Your task to perform on an android device: change alarm snooze length Image 0: 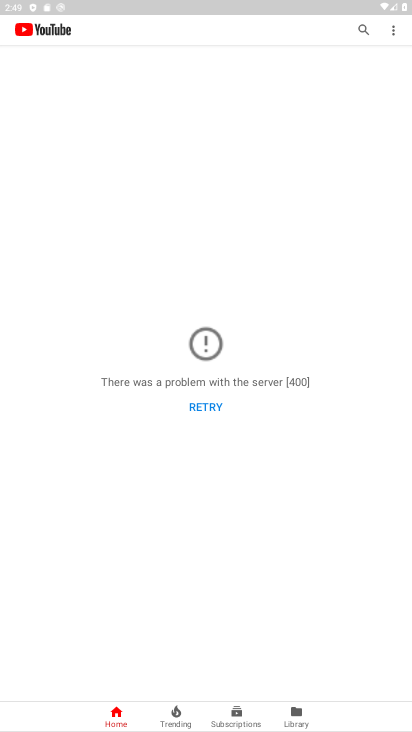
Step 0: press home button
Your task to perform on an android device: change alarm snooze length Image 1: 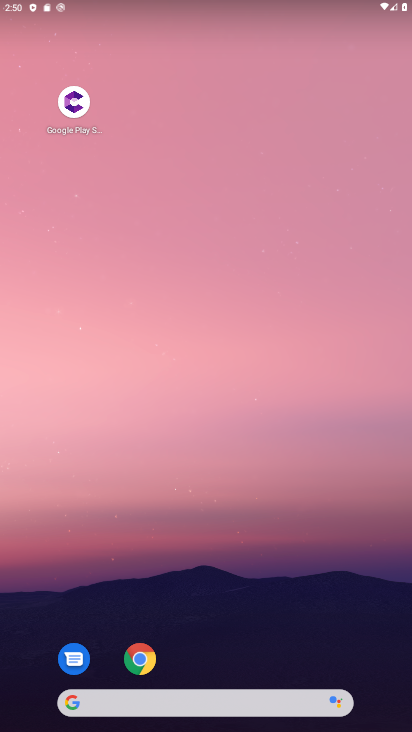
Step 1: drag from (263, 601) to (319, 6)
Your task to perform on an android device: change alarm snooze length Image 2: 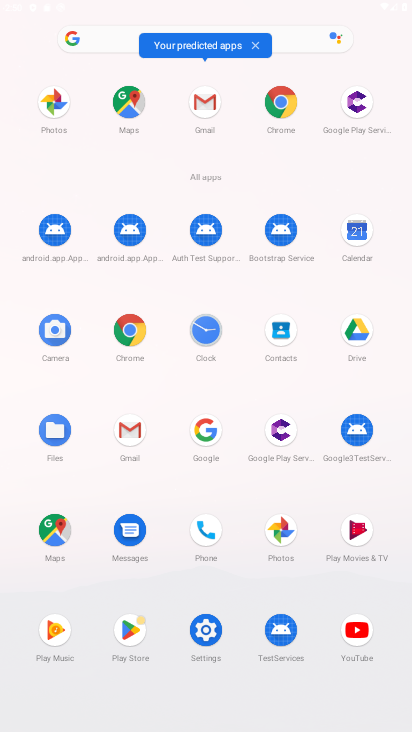
Step 2: click (201, 323)
Your task to perform on an android device: change alarm snooze length Image 3: 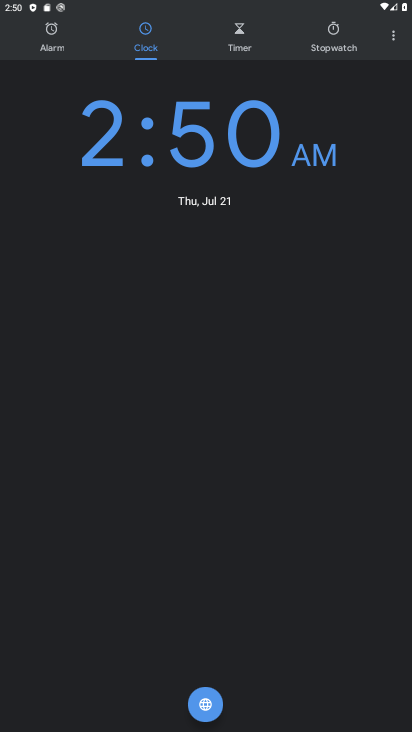
Step 3: click (397, 43)
Your task to perform on an android device: change alarm snooze length Image 4: 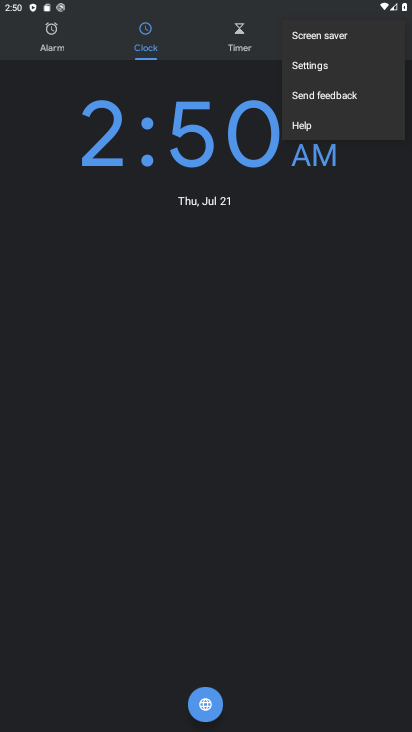
Step 4: click (337, 67)
Your task to perform on an android device: change alarm snooze length Image 5: 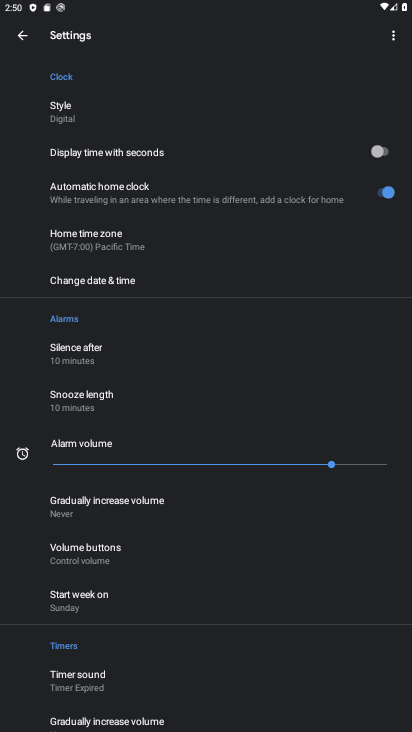
Step 5: click (123, 396)
Your task to perform on an android device: change alarm snooze length Image 6: 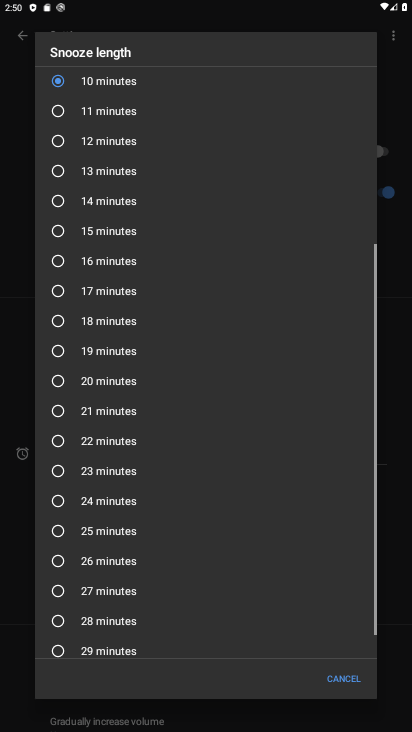
Step 6: click (119, 417)
Your task to perform on an android device: change alarm snooze length Image 7: 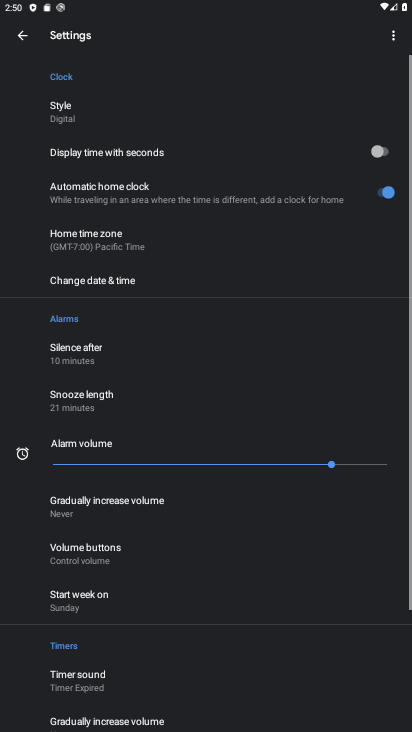
Step 7: task complete